Your task to perform on an android device: Open CNN.com Image 0: 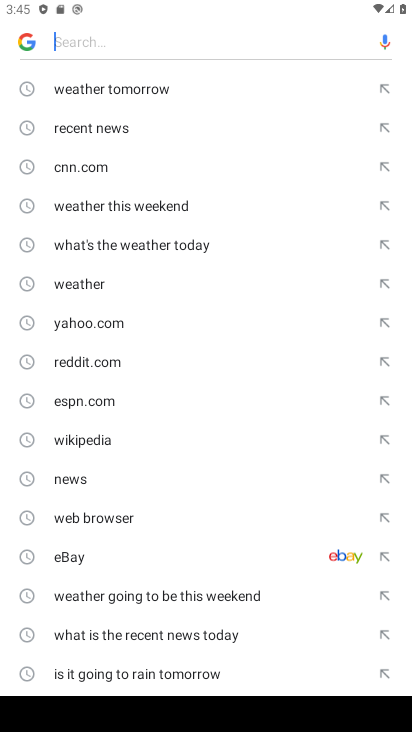
Step 0: press back button
Your task to perform on an android device: Open CNN.com Image 1: 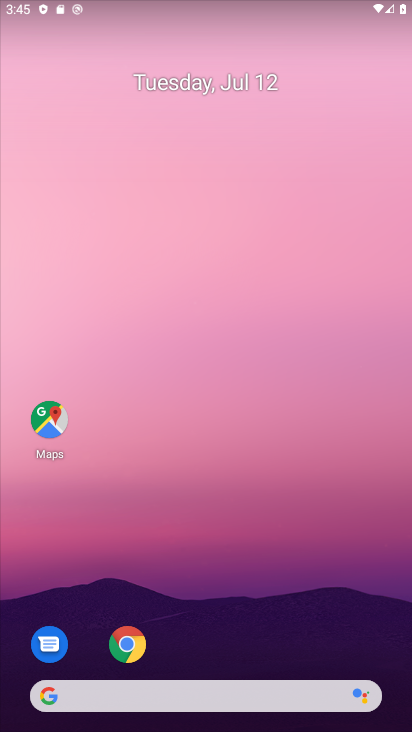
Step 1: click (119, 654)
Your task to perform on an android device: Open CNN.com Image 2: 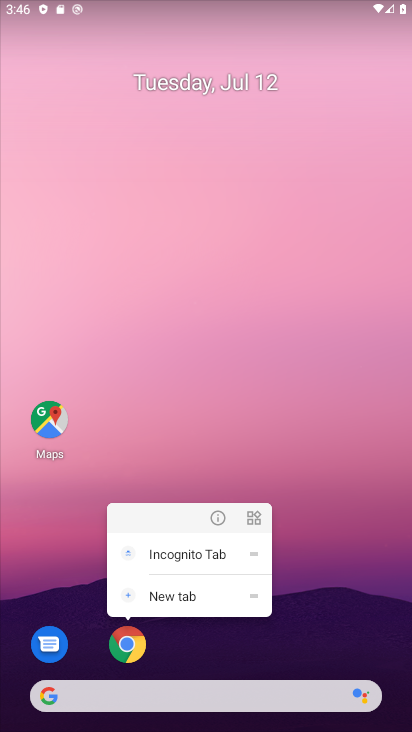
Step 2: click (125, 644)
Your task to perform on an android device: Open CNN.com Image 3: 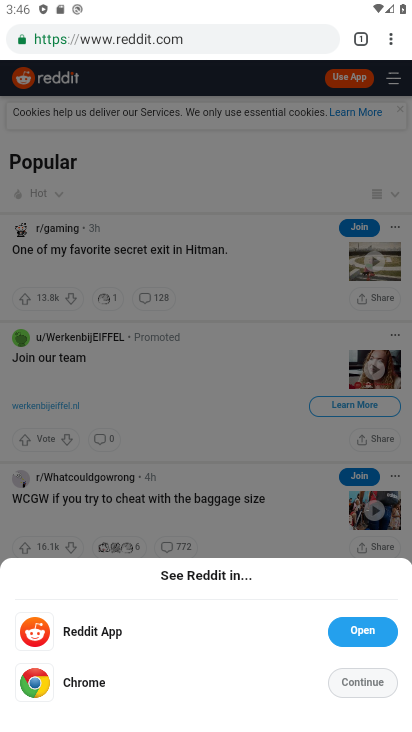
Step 3: click (160, 40)
Your task to perform on an android device: Open CNN.com Image 4: 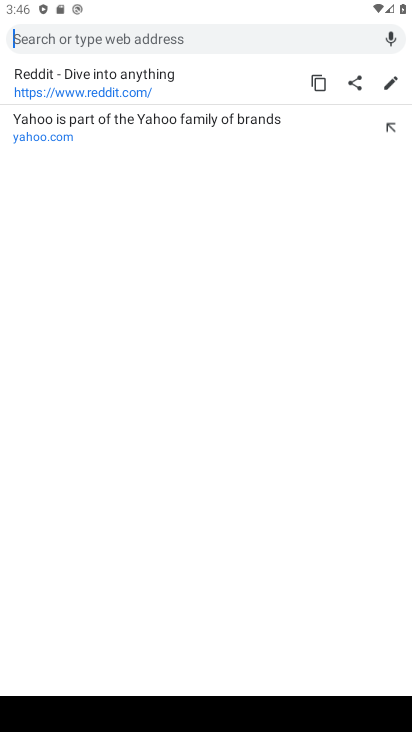
Step 4: type "cnn.com"
Your task to perform on an android device: Open CNN.com Image 5: 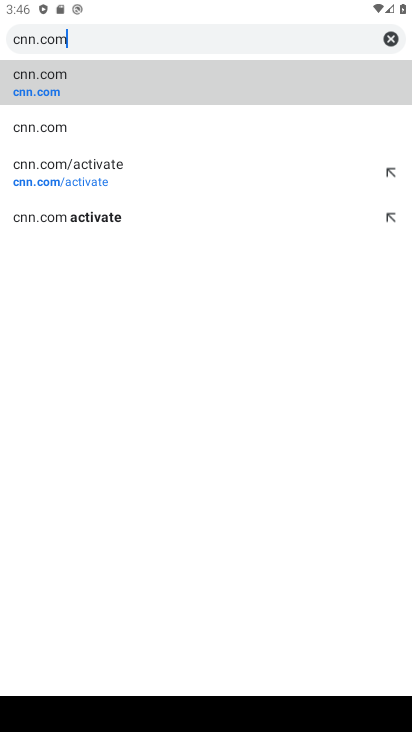
Step 5: click (116, 81)
Your task to perform on an android device: Open CNN.com Image 6: 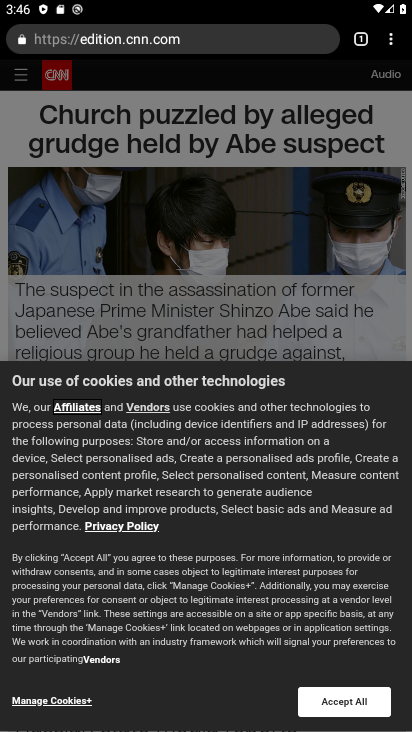
Step 6: task complete